Your task to perform on an android device: Clear all items from cart on costco. Add "razer thresher" to the cart on costco, then select checkout. Image 0: 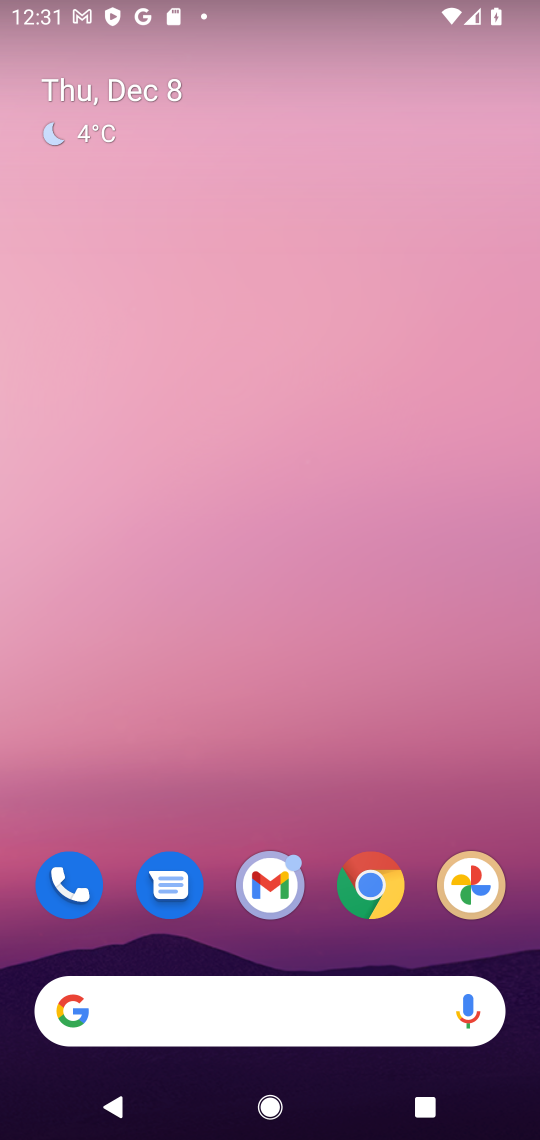
Step 0: click (65, 1013)
Your task to perform on an android device: Clear all items from cart on costco. Add "razer thresher" to the cart on costco, then select checkout. Image 1: 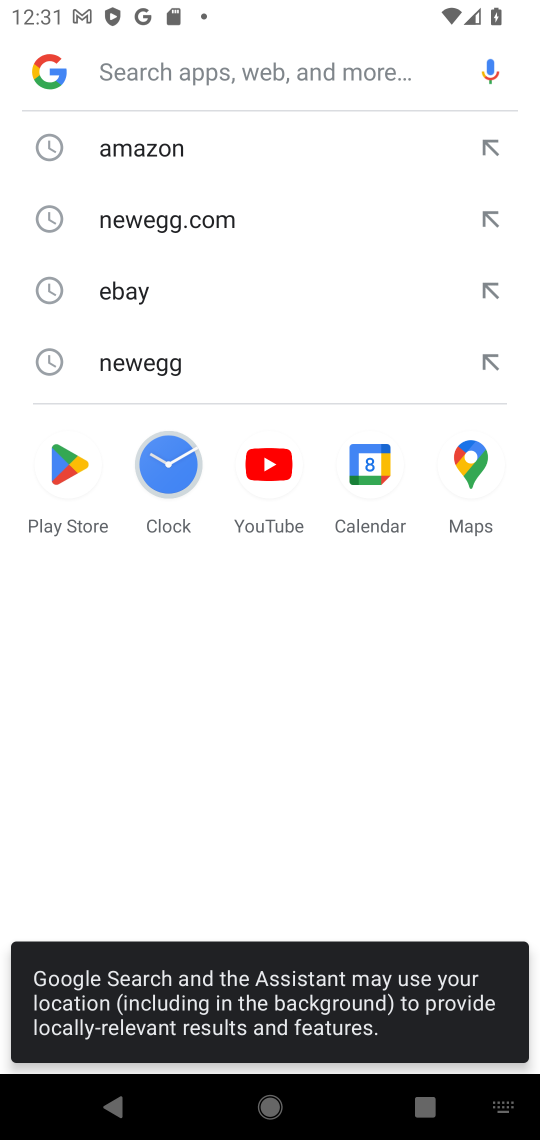
Step 1: click (310, 75)
Your task to perform on an android device: Clear all items from cart on costco. Add "razer thresher" to the cart on costco, then select checkout. Image 2: 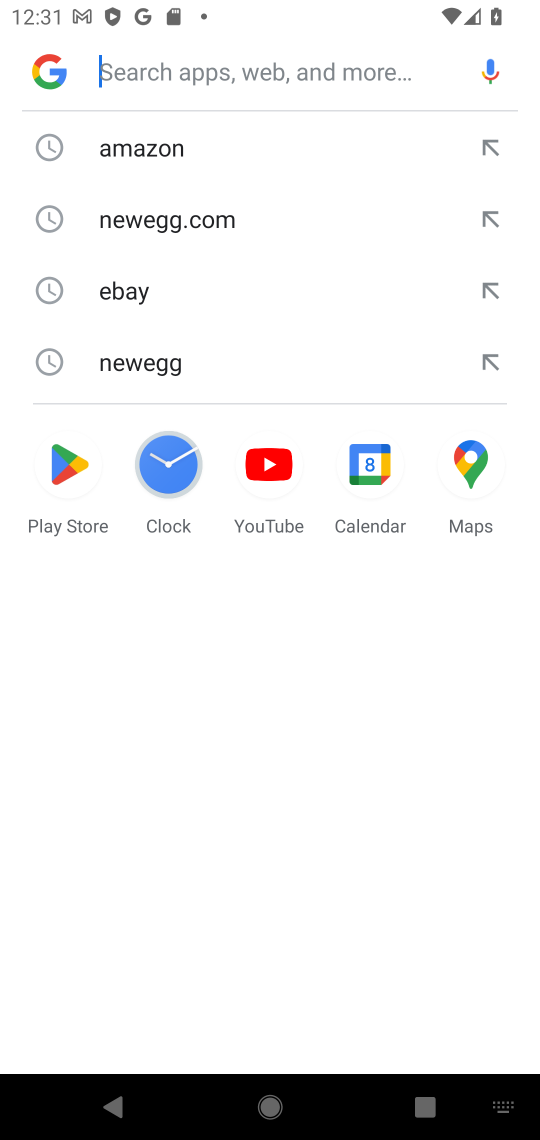
Step 2: type "COSTCO"
Your task to perform on an android device: Clear all items from cart on costco. Add "razer thresher" to the cart on costco, then select checkout. Image 3: 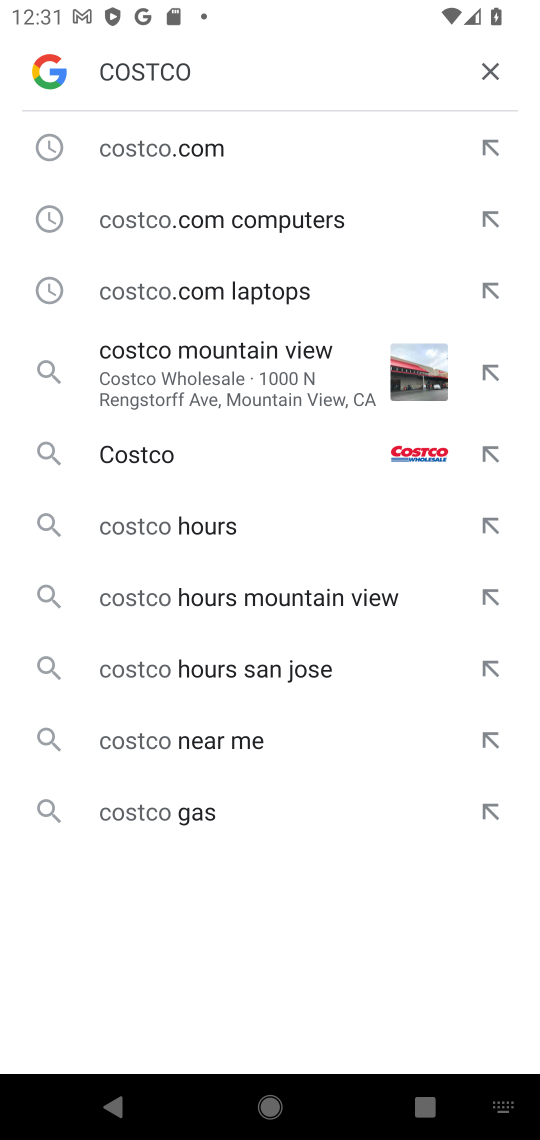
Step 3: click (217, 148)
Your task to perform on an android device: Clear all items from cart on costco. Add "razer thresher" to the cart on costco, then select checkout. Image 4: 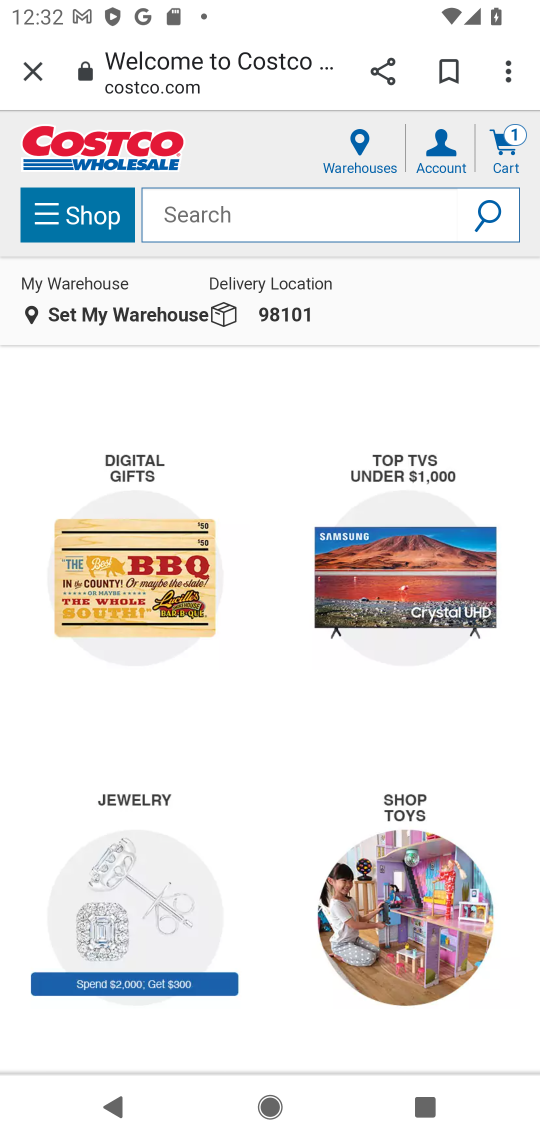
Step 4: click (511, 148)
Your task to perform on an android device: Clear all items from cart on costco. Add "razer thresher" to the cart on costco, then select checkout. Image 5: 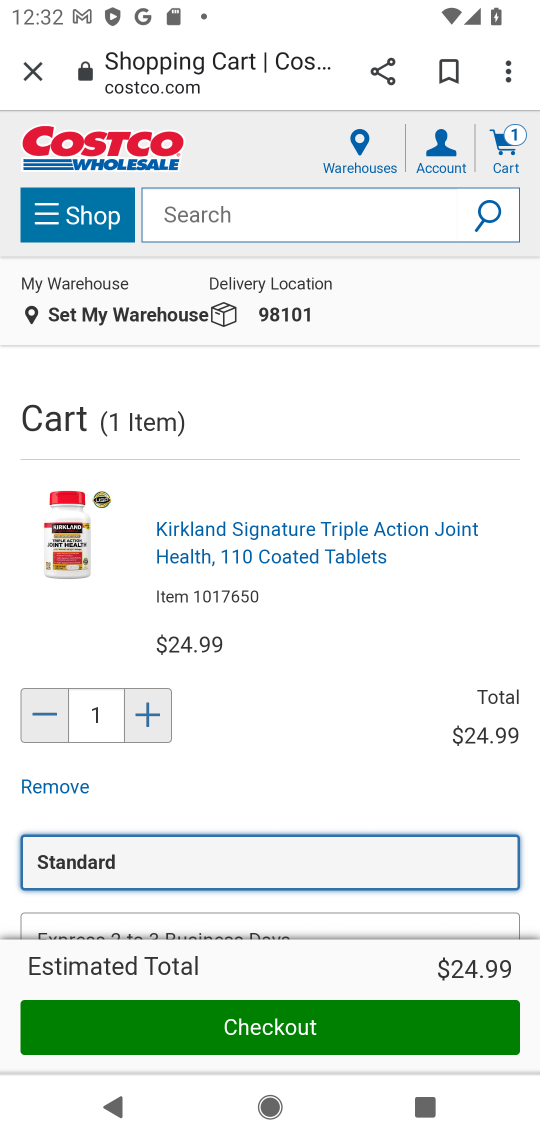
Step 5: click (62, 788)
Your task to perform on an android device: Clear all items from cart on costco. Add "razer thresher" to the cart on costco, then select checkout. Image 6: 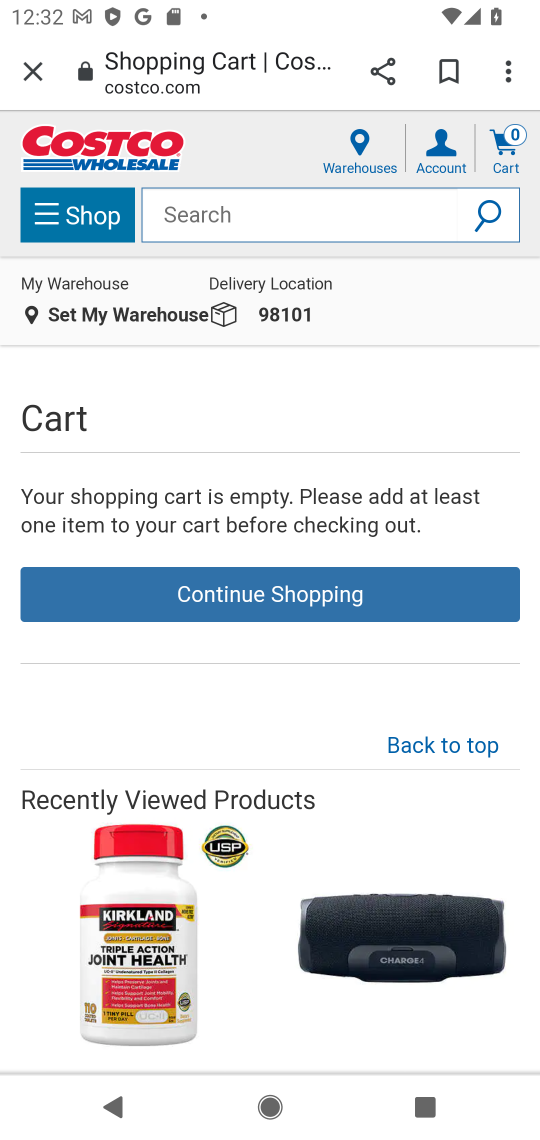
Step 6: click (300, 224)
Your task to perform on an android device: Clear all items from cart on costco. Add "razer thresher" to the cart on costco, then select checkout. Image 7: 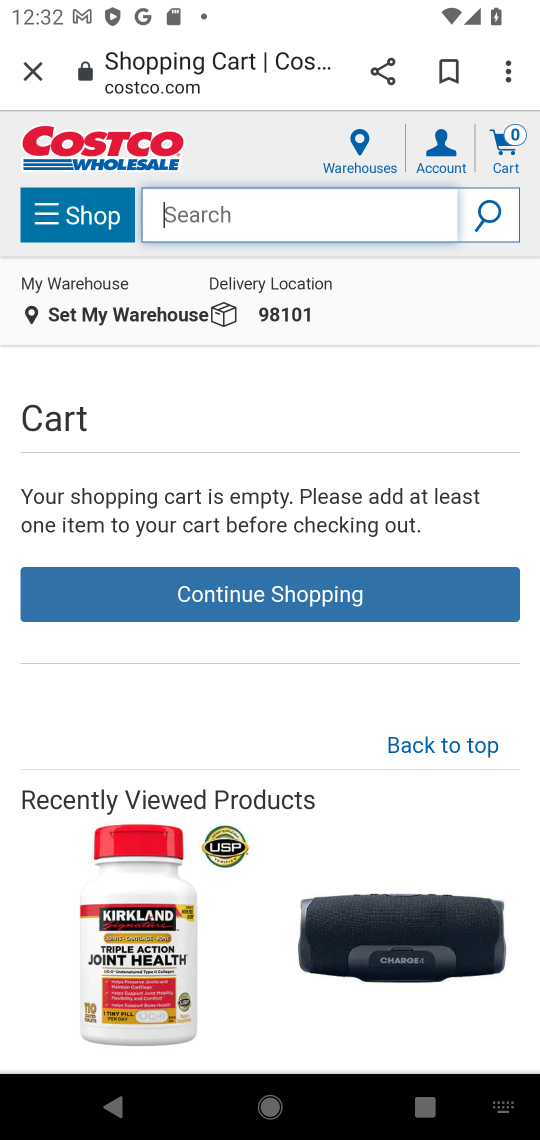
Step 7: type "razer thresher"
Your task to perform on an android device: Clear all items from cart on costco. Add "razer thresher" to the cart on costco, then select checkout. Image 8: 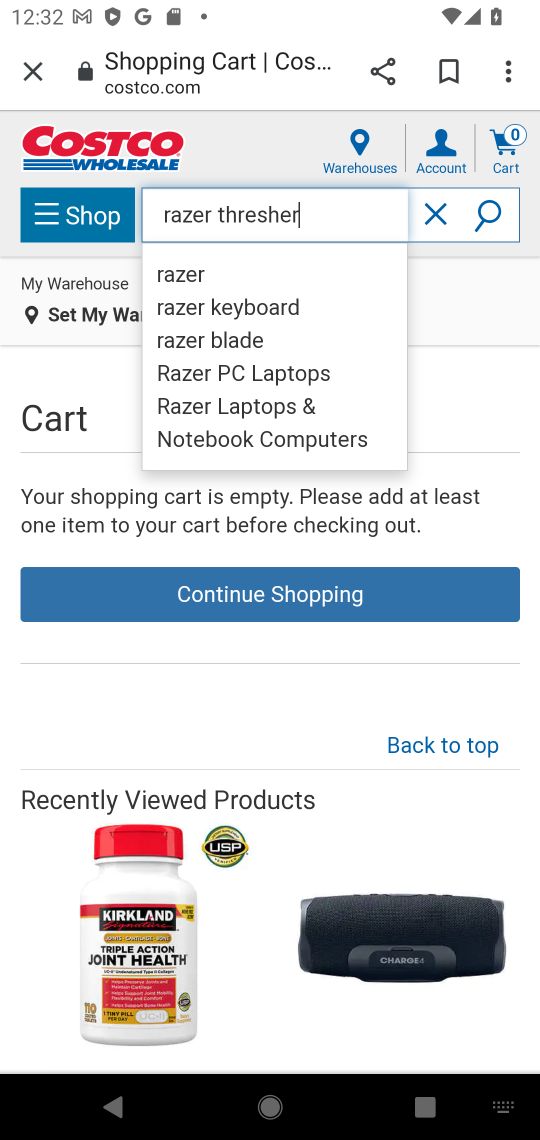
Step 8: click (188, 276)
Your task to perform on an android device: Clear all items from cart on costco. Add "razer thresher" to the cart on costco, then select checkout. Image 9: 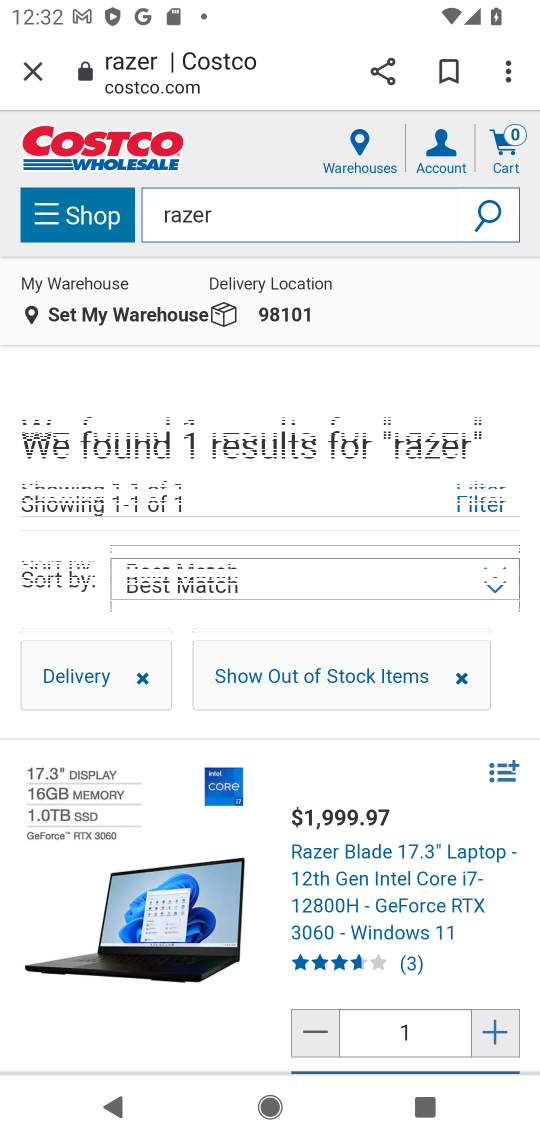
Step 9: click (166, 927)
Your task to perform on an android device: Clear all items from cart on costco. Add "razer thresher" to the cart on costco, then select checkout. Image 10: 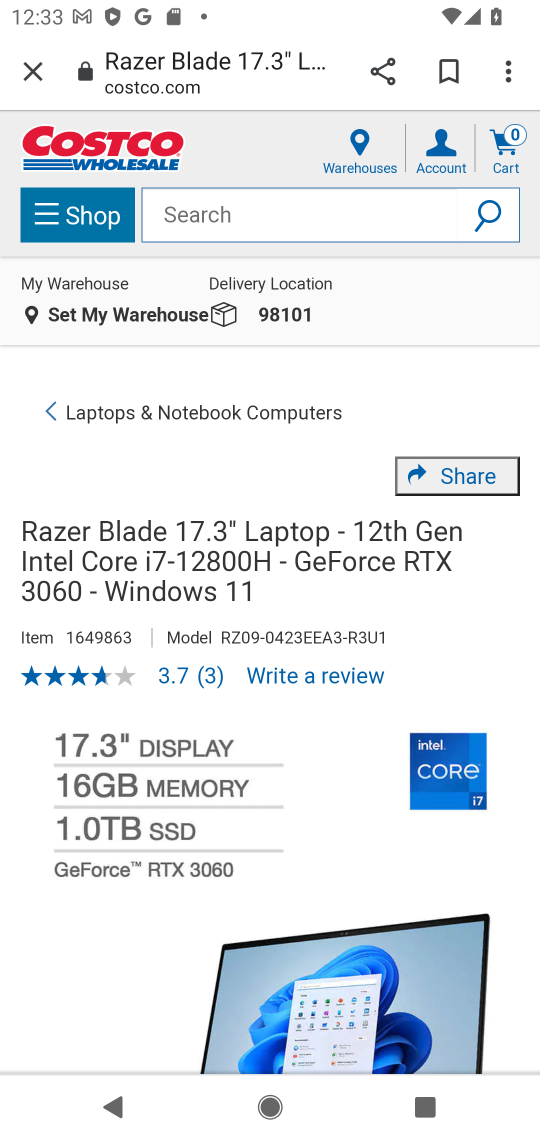
Step 10: drag from (372, 984) to (384, 337)
Your task to perform on an android device: Clear all items from cart on costco. Add "razer thresher" to the cart on costco, then select checkout. Image 11: 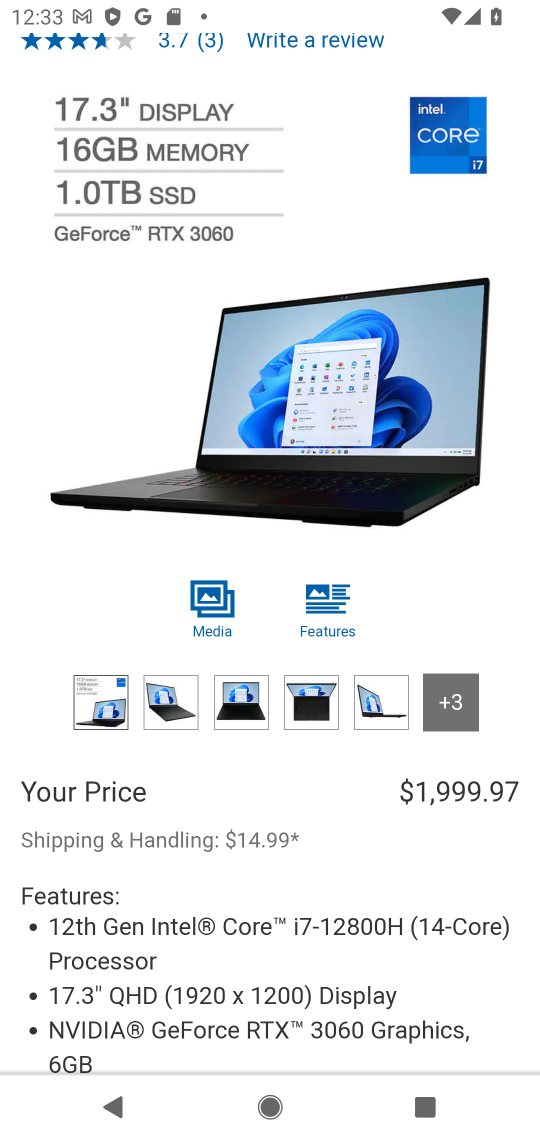
Step 11: drag from (404, 948) to (380, 361)
Your task to perform on an android device: Clear all items from cart on costco. Add "razer thresher" to the cart on costco, then select checkout. Image 12: 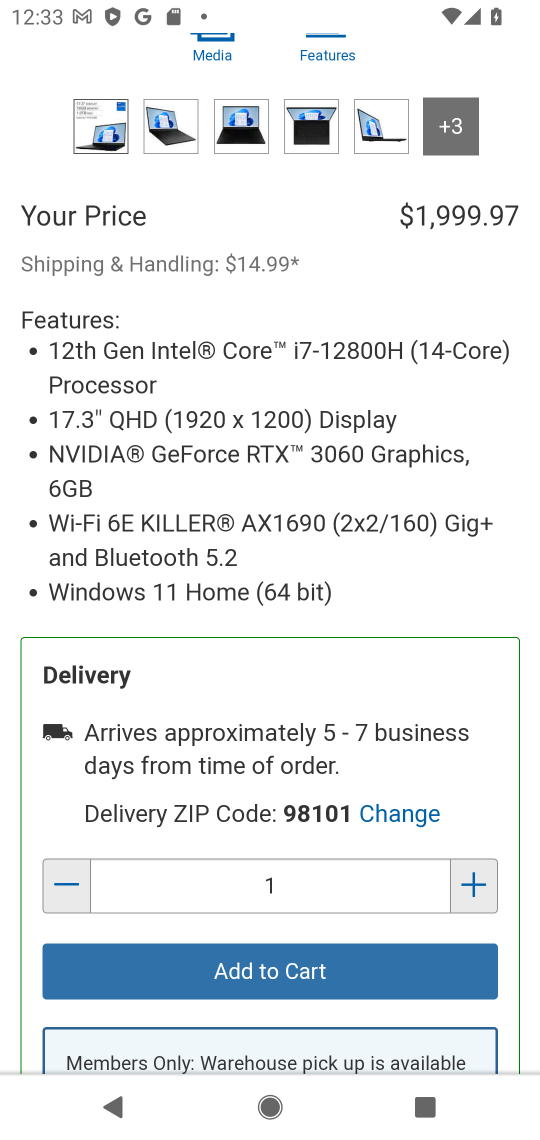
Step 12: click (305, 974)
Your task to perform on an android device: Clear all items from cart on costco. Add "razer thresher" to the cart on costco, then select checkout. Image 13: 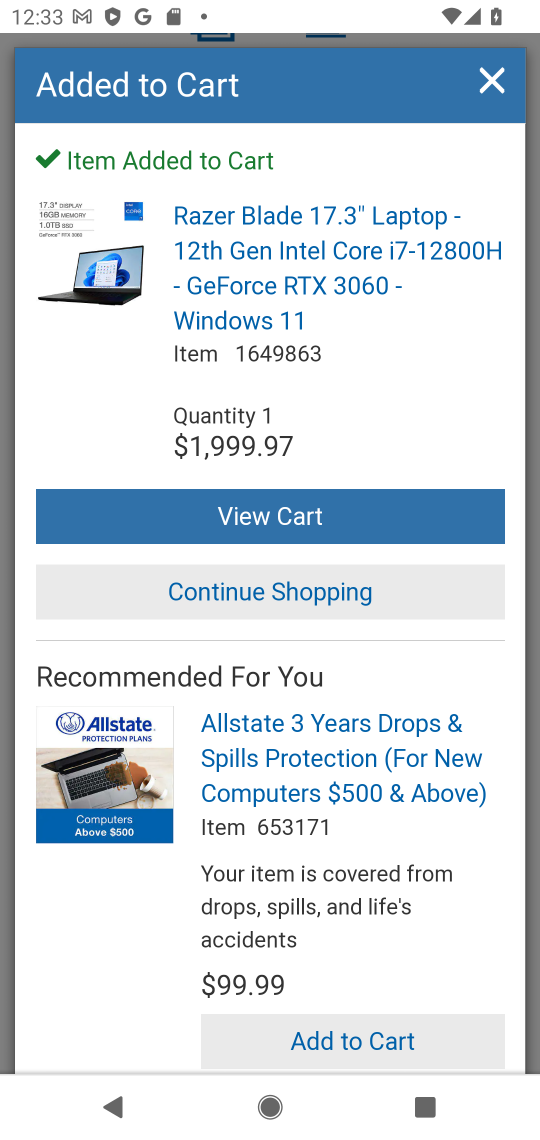
Step 13: click (304, 509)
Your task to perform on an android device: Clear all items from cart on costco. Add "razer thresher" to the cart on costco, then select checkout. Image 14: 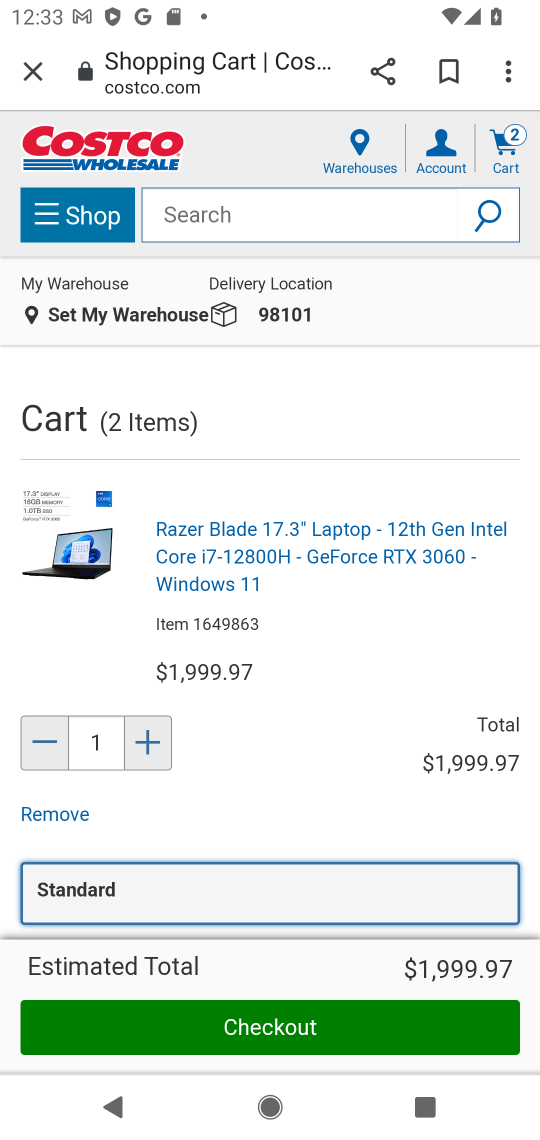
Step 14: click (283, 1031)
Your task to perform on an android device: Clear all items from cart on costco. Add "razer thresher" to the cart on costco, then select checkout. Image 15: 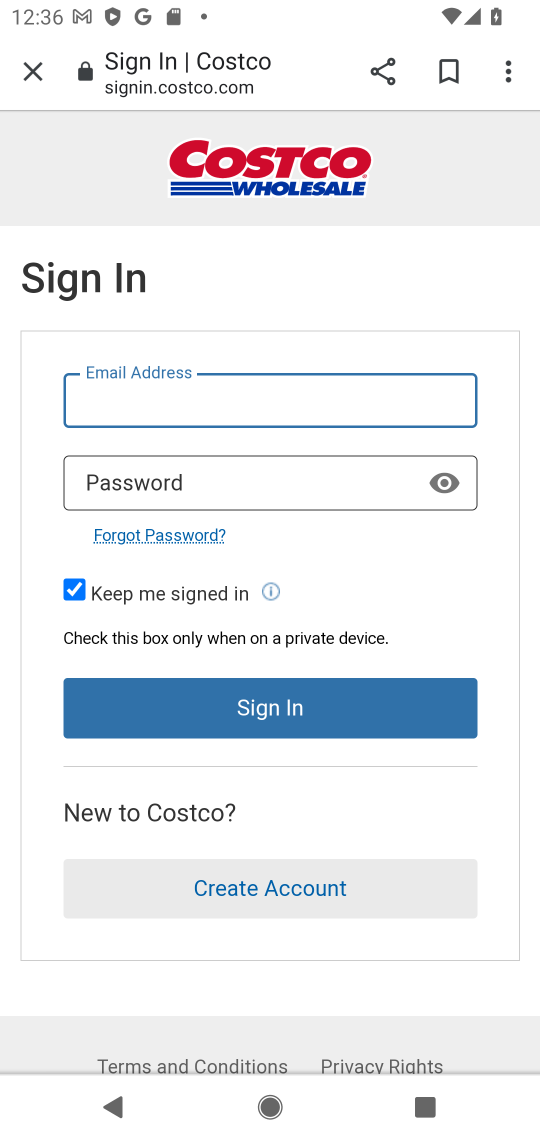
Step 15: task complete